Your task to perform on an android device: turn off airplane mode Image 0: 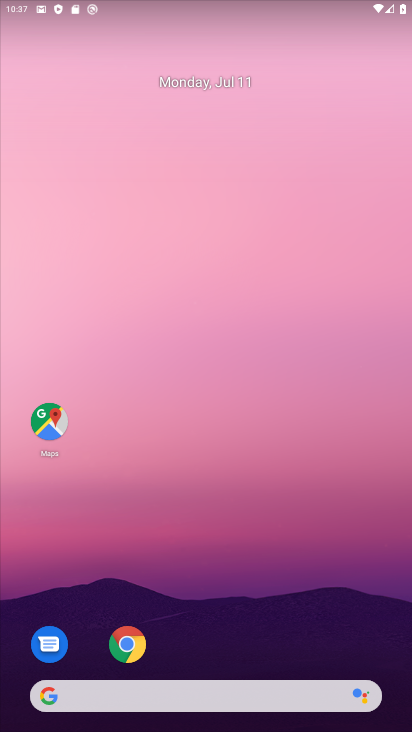
Step 0: drag from (231, 653) to (206, 118)
Your task to perform on an android device: turn off airplane mode Image 1: 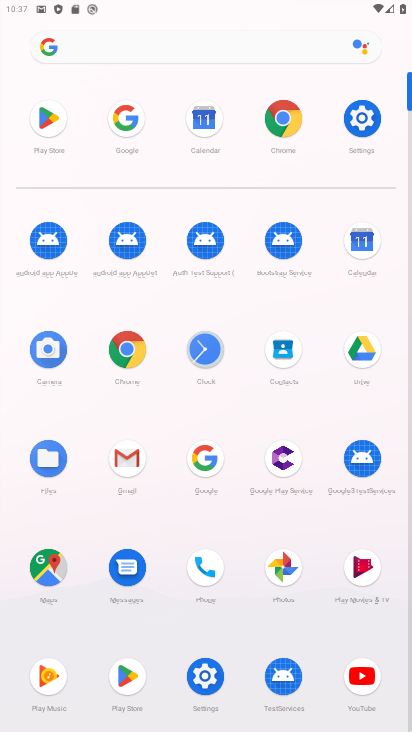
Step 1: click (354, 127)
Your task to perform on an android device: turn off airplane mode Image 2: 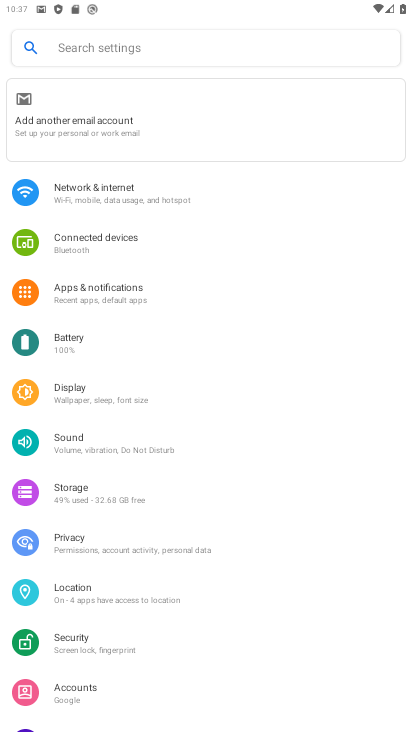
Step 2: click (103, 189)
Your task to perform on an android device: turn off airplane mode Image 3: 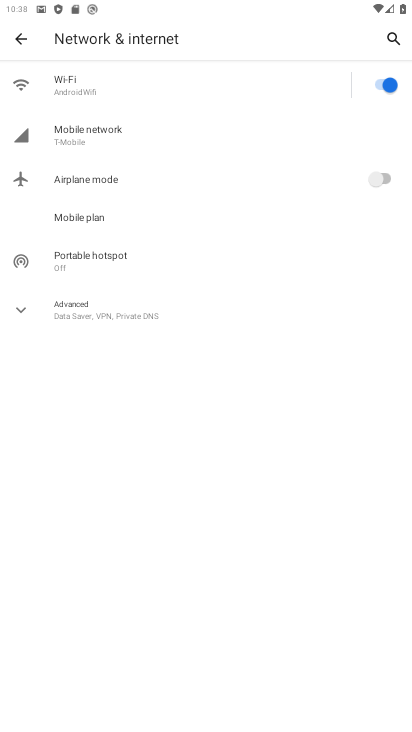
Step 3: task complete